Your task to perform on an android device: Open calendar and show me the second week of next month Image 0: 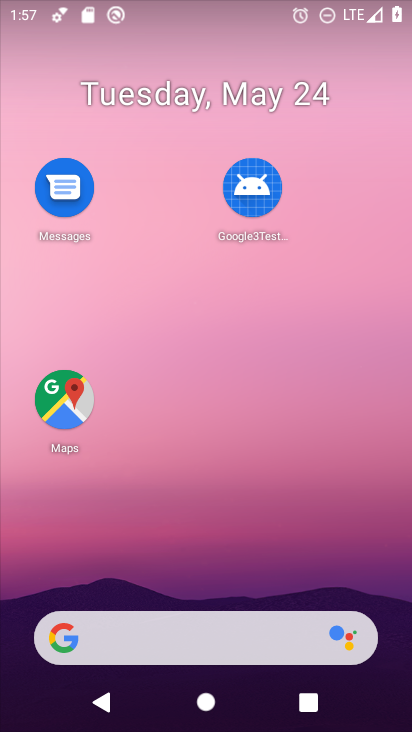
Step 0: drag from (222, 334) to (229, 19)
Your task to perform on an android device: Open calendar and show me the second week of next month Image 1: 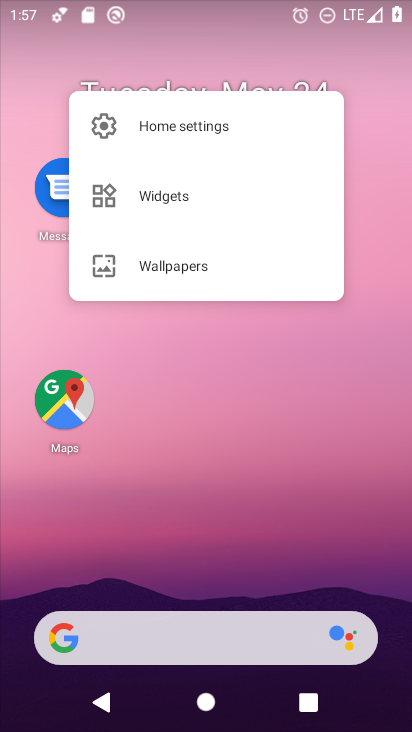
Step 1: click (197, 599)
Your task to perform on an android device: Open calendar and show me the second week of next month Image 2: 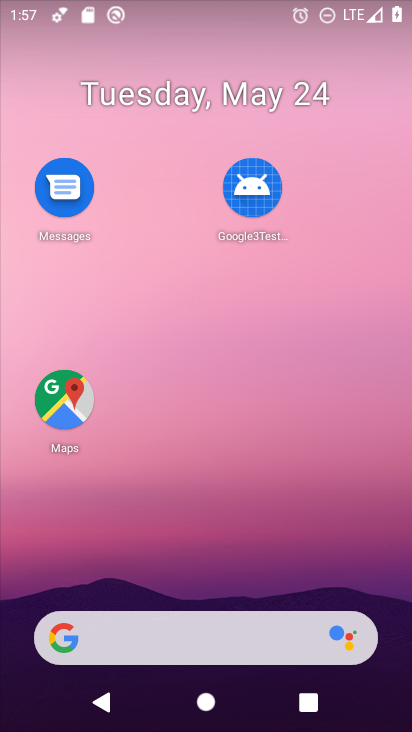
Step 2: drag from (197, 563) to (264, 1)
Your task to perform on an android device: Open calendar and show me the second week of next month Image 3: 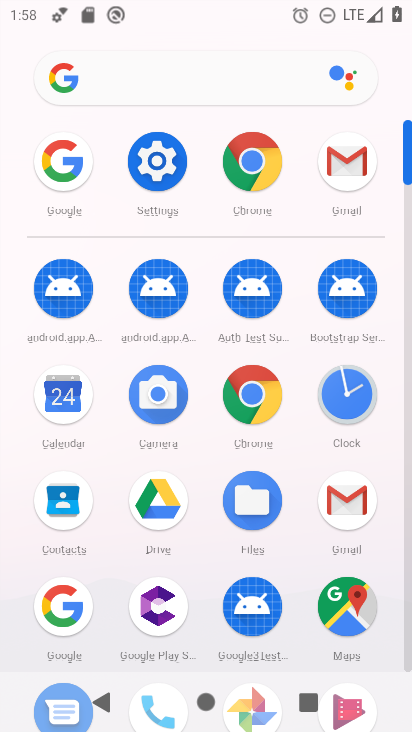
Step 3: click (72, 428)
Your task to perform on an android device: Open calendar and show me the second week of next month Image 4: 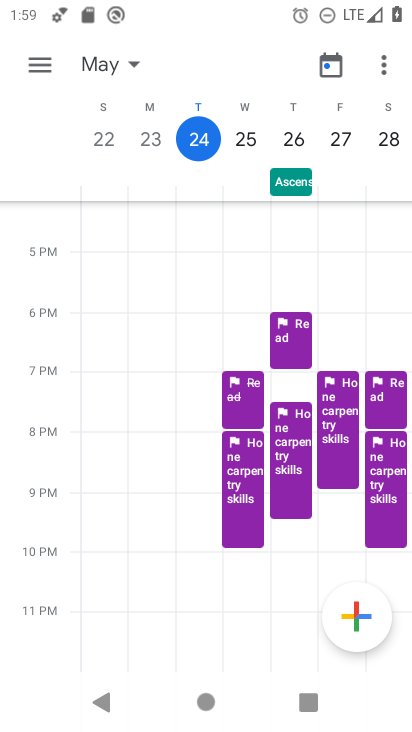
Step 4: click (98, 63)
Your task to perform on an android device: Open calendar and show me the second week of next month Image 5: 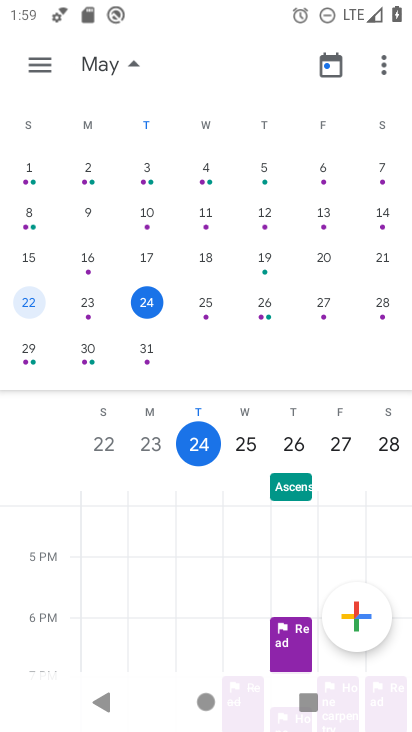
Step 5: drag from (385, 225) to (34, 238)
Your task to perform on an android device: Open calendar and show me the second week of next month Image 6: 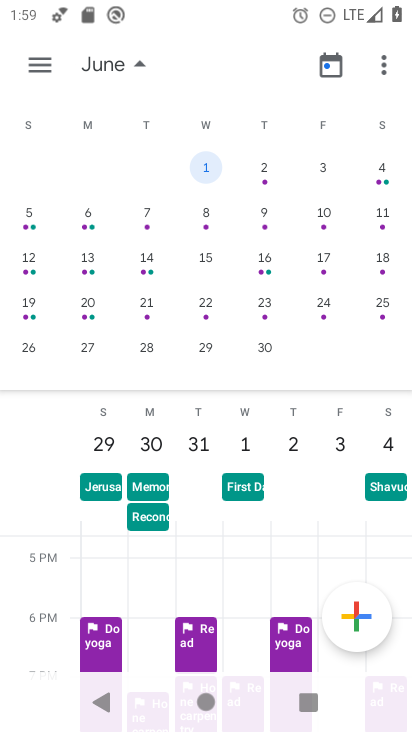
Step 6: click (34, 267)
Your task to perform on an android device: Open calendar and show me the second week of next month Image 7: 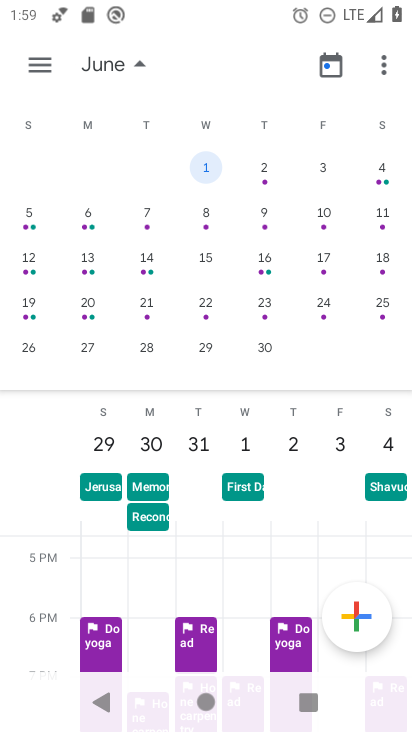
Step 7: click (29, 260)
Your task to perform on an android device: Open calendar and show me the second week of next month Image 8: 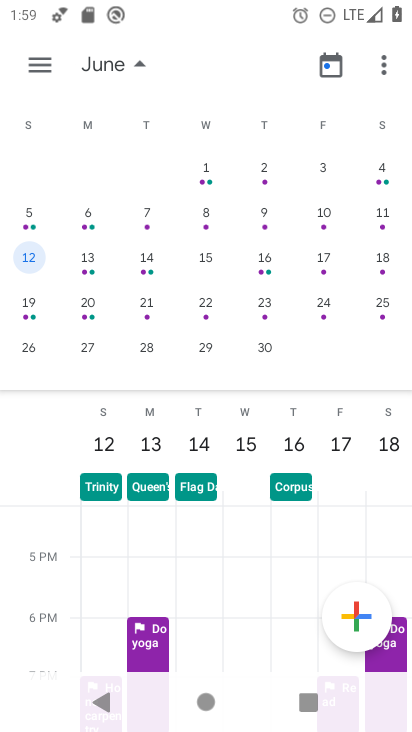
Step 8: click (29, 260)
Your task to perform on an android device: Open calendar and show me the second week of next month Image 9: 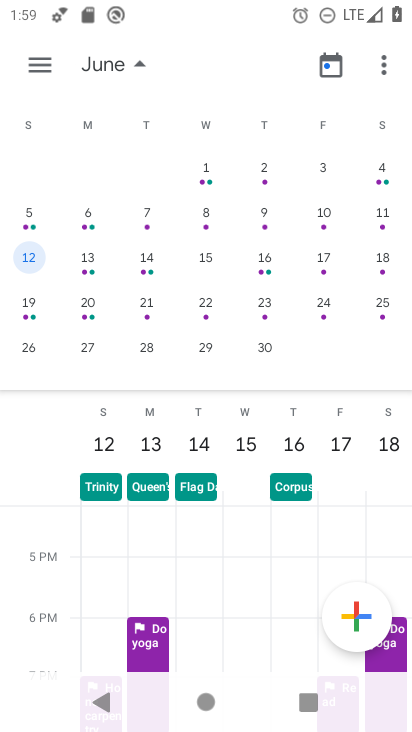
Step 9: task complete